Your task to perform on an android device: set an alarm Image 0: 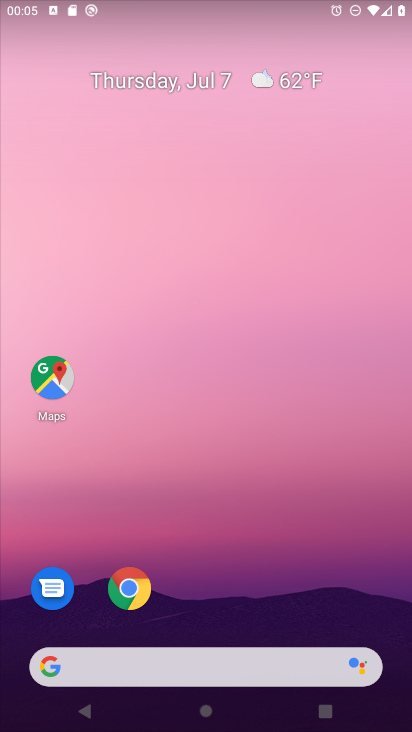
Step 0: drag from (356, 619) to (349, 36)
Your task to perform on an android device: set an alarm Image 1: 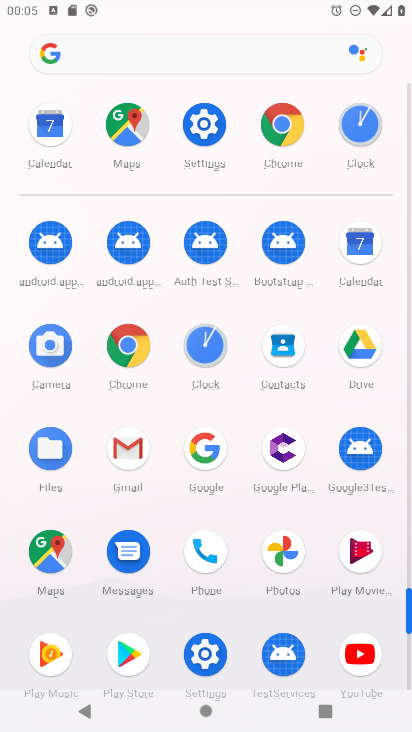
Step 1: click (203, 347)
Your task to perform on an android device: set an alarm Image 2: 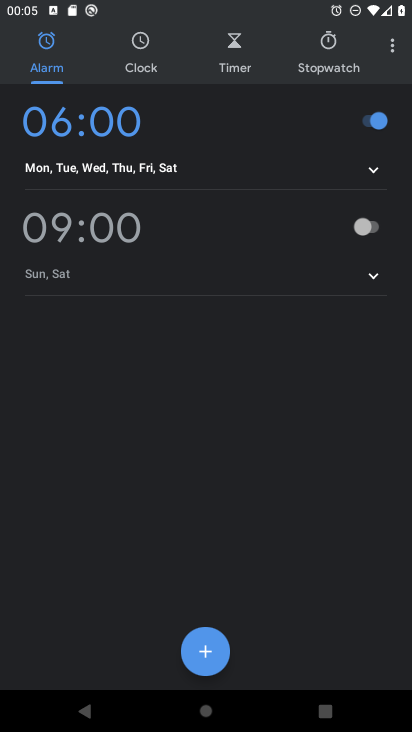
Step 2: click (45, 249)
Your task to perform on an android device: set an alarm Image 3: 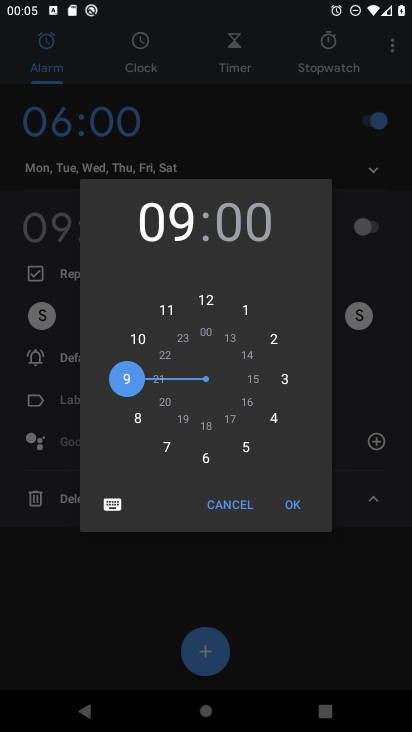
Step 3: click (213, 466)
Your task to perform on an android device: set an alarm Image 4: 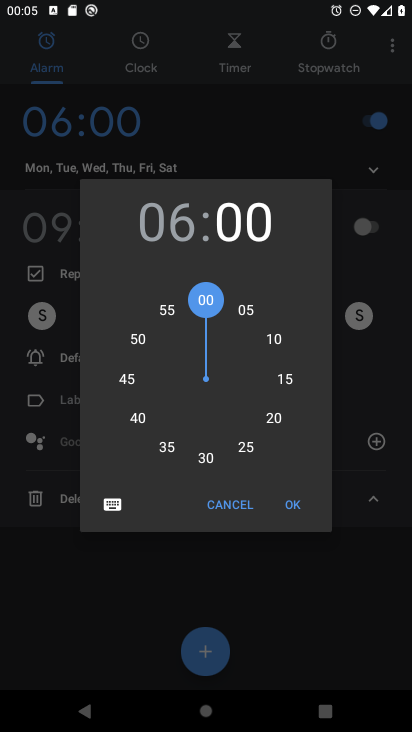
Step 4: click (289, 377)
Your task to perform on an android device: set an alarm Image 5: 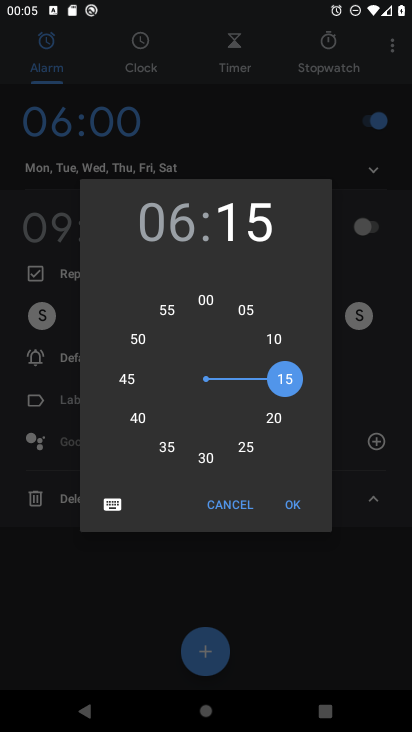
Step 5: click (291, 505)
Your task to perform on an android device: set an alarm Image 6: 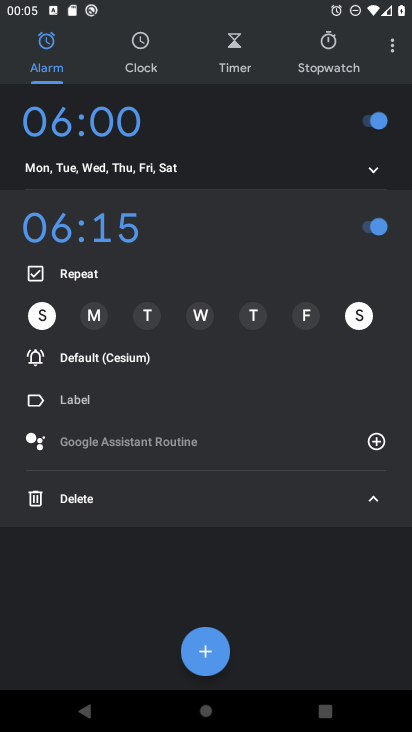
Step 6: click (84, 316)
Your task to perform on an android device: set an alarm Image 7: 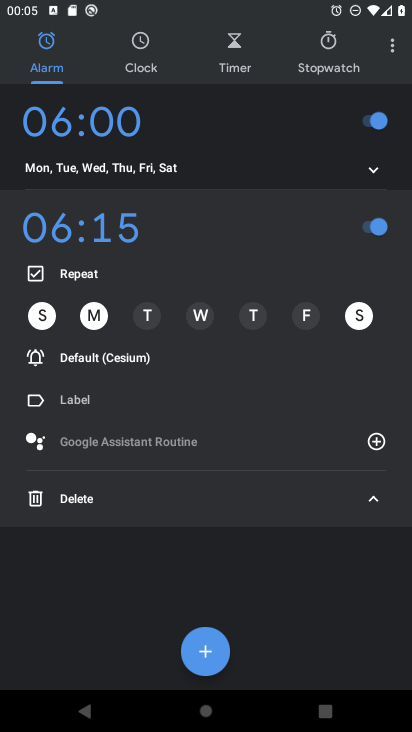
Step 7: click (143, 313)
Your task to perform on an android device: set an alarm Image 8: 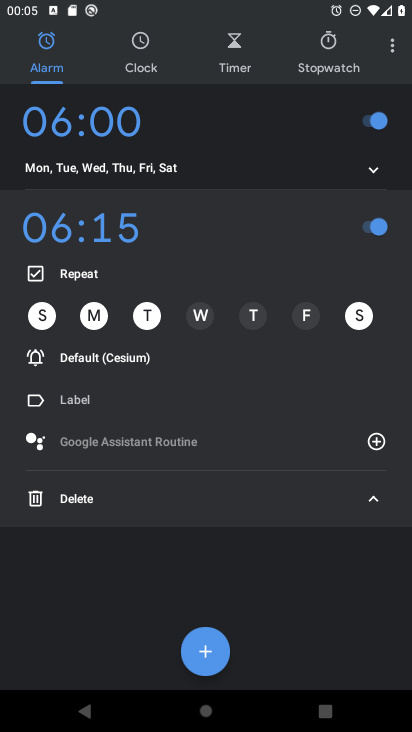
Step 8: click (191, 316)
Your task to perform on an android device: set an alarm Image 9: 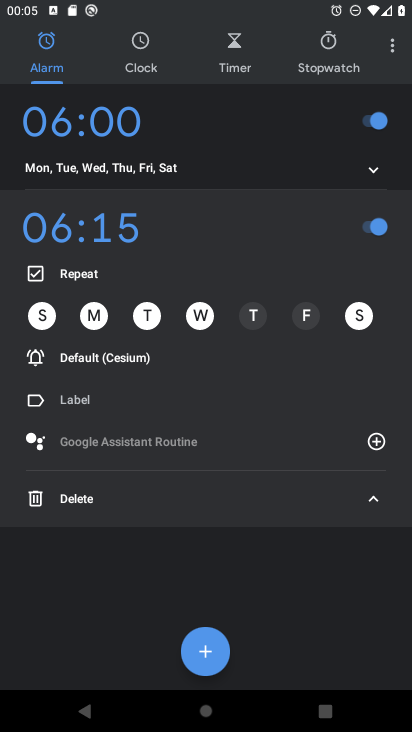
Step 9: click (266, 321)
Your task to perform on an android device: set an alarm Image 10: 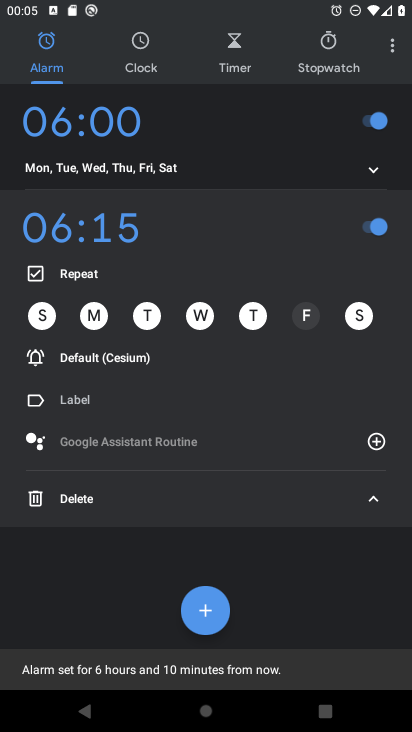
Step 10: click (300, 317)
Your task to perform on an android device: set an alarm Image 11: 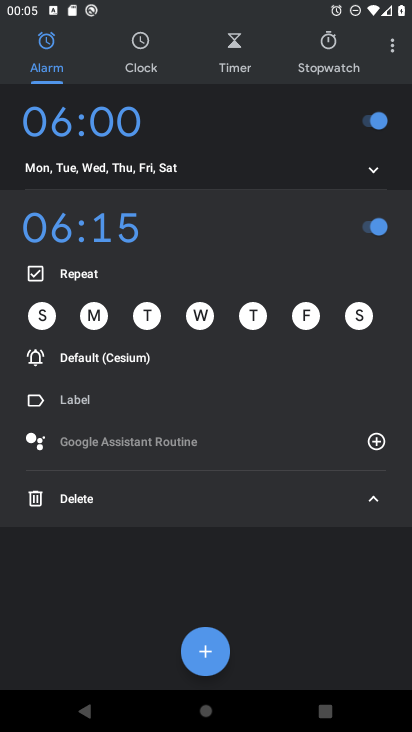
Step 11: click (40, 316)
Your task to perform on an android device: set an alarm Image 12: 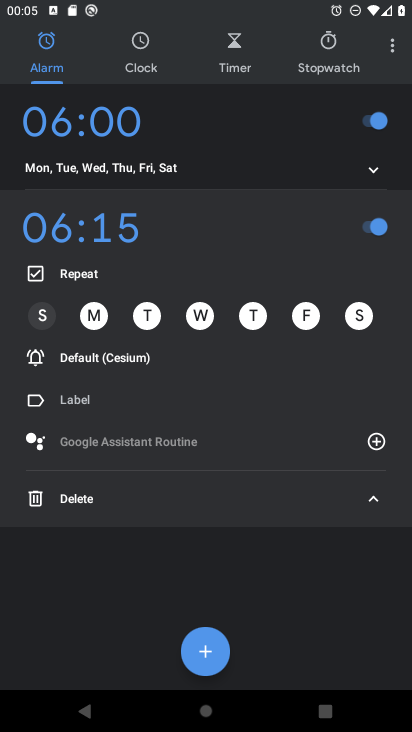
Step 12: click (375, 498)
Your task to perform on an android device: set an alarm Image 13: 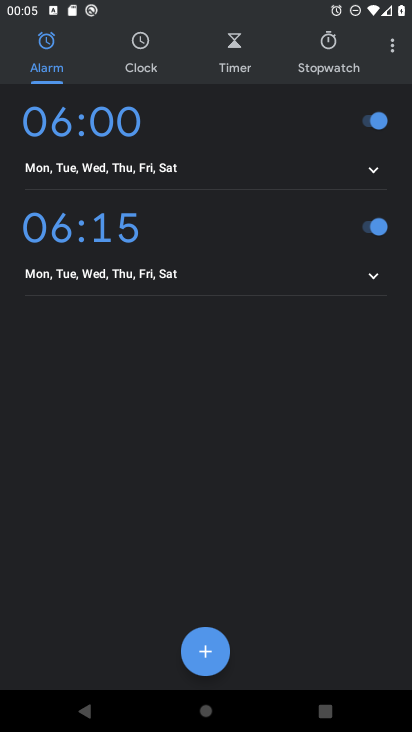
Step 13: task complete